Your task to perform on an android device: allow cookies in the chrome app Image 0: 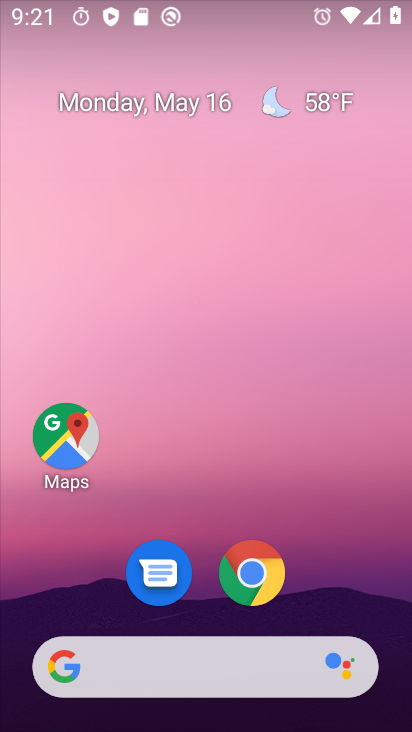
Step 0: drag from (200, 342) to (133, 62)
Your task to perform on an android device: allow cookies in the chrome app Image 1: 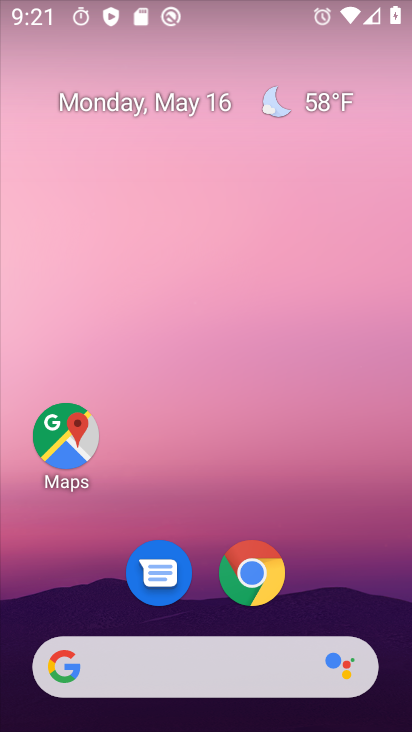
Step 1: drag from (207, 647) to (145, 67)
Your task to perform on an android device: allow cookies in the chrome app Image 2: 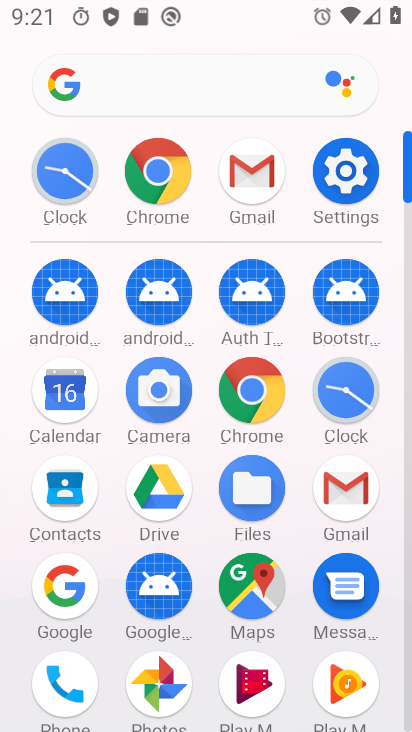
Step 2: click (159, 172)
Your task to perform on an android device: allow cookies in the chrome app Image 3: 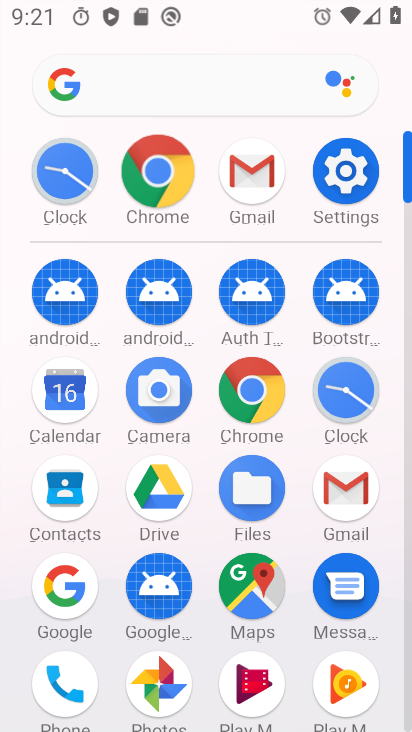
Step 3: click (159, 172)
Your task to perform on an android device: allow cookies in the chrome app Image 4: 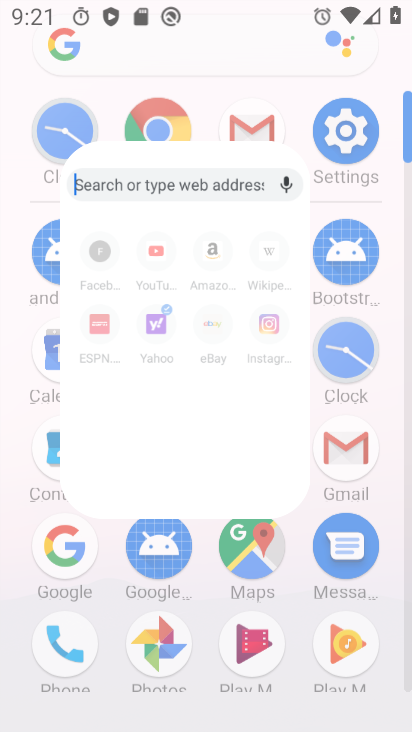
Step 4: click (159, 172)
Your task to perform on an android device: allow cookies in the chrome app Image 5: 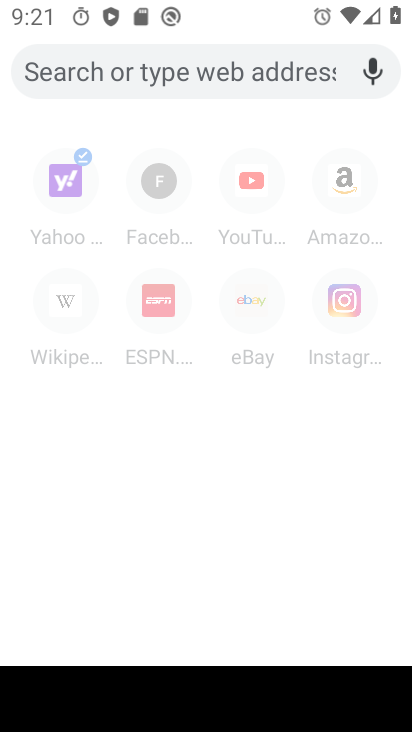
Step 5: press back button
Your task to perform on an android device: allow cookies in the chrome app Image 6: 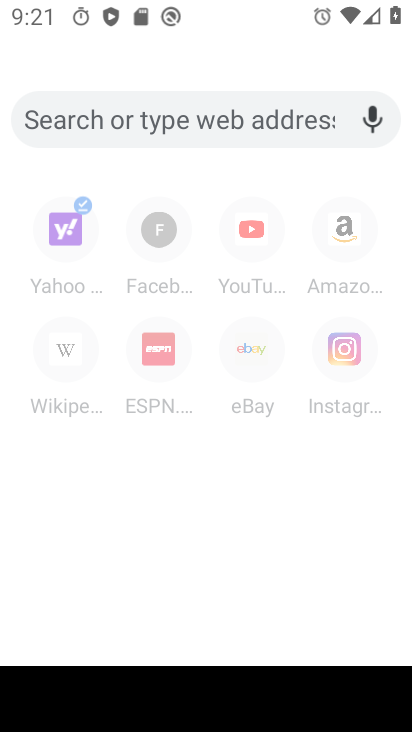
Step 6: press back button
Your task to perform on an android device: allow cookies in the chrome app Image 7: 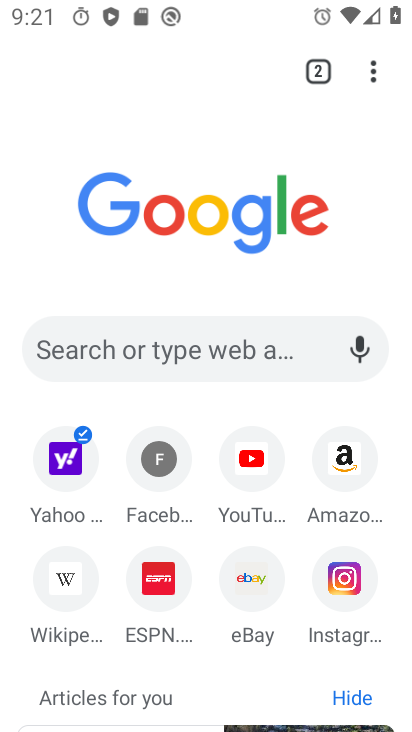
Step 7: press back button
Your task to perform on an android device: allow cookies in the chrome app Image 8: 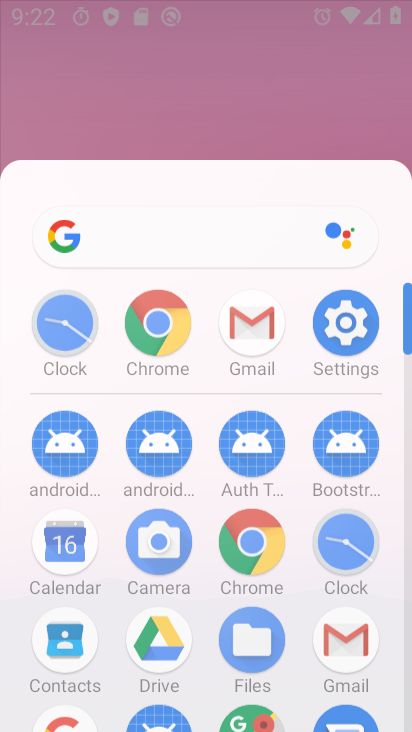
Step 8: press back button
Your task to perform on an android device: allow cookies in the chrome app Image 9: 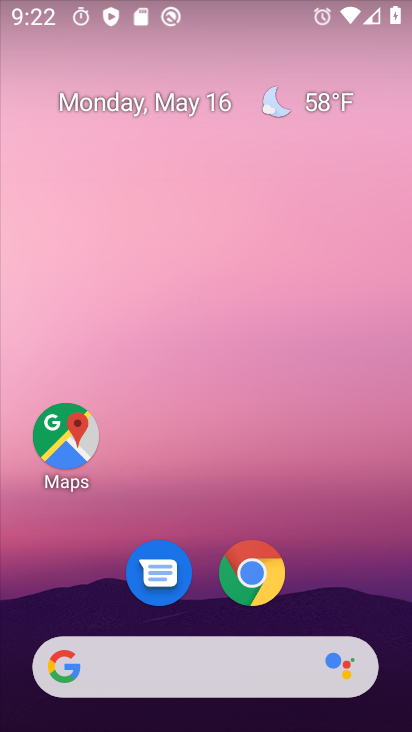
Step 9: click (374, 75)
Your task to perform on an android device: allow cookies in the chrome app Image 10: 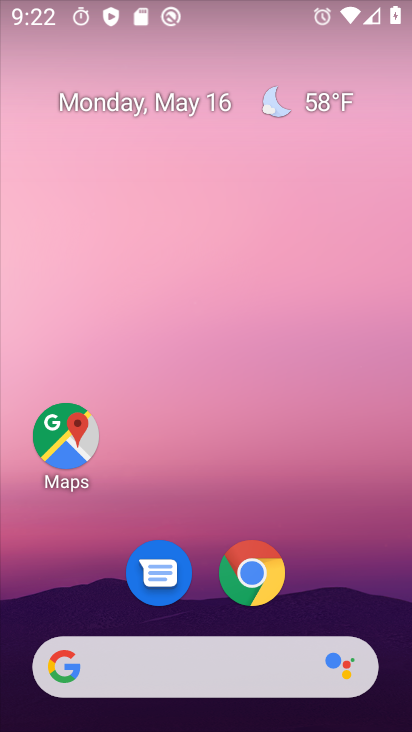
Step 10: drag from (287, 655) to (411, 216)
Your task to perform on an android device: allow cookies in the chrome app Image 11: 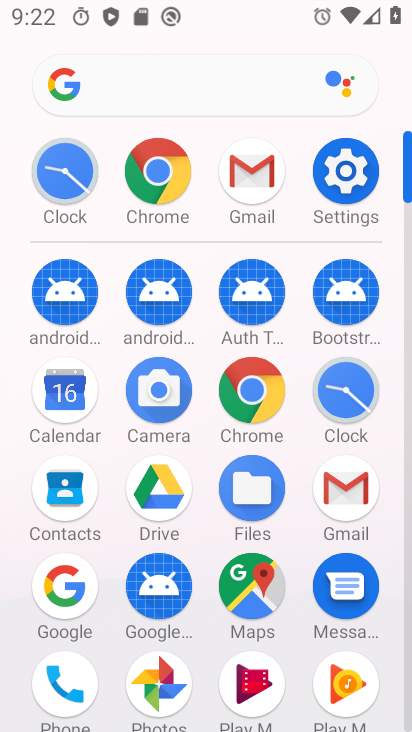
Step 11: click (254, 394)
Your task to perform on an android device: allow cookies in the chrome app Image 12: 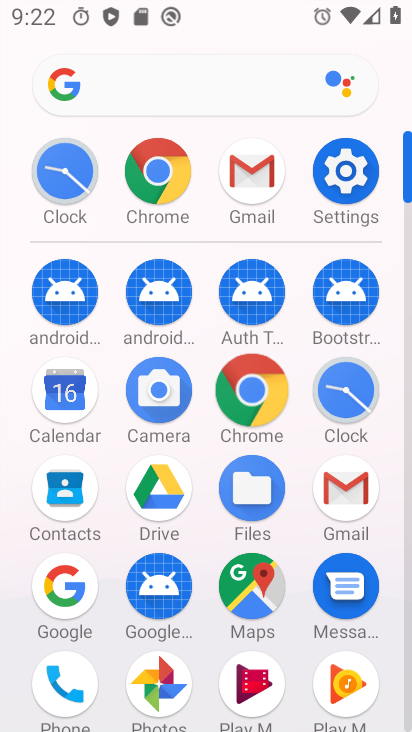
Step 12: click (254, 394)
Your task to perform on an android device: allow cookies in the chrome app Image 13: 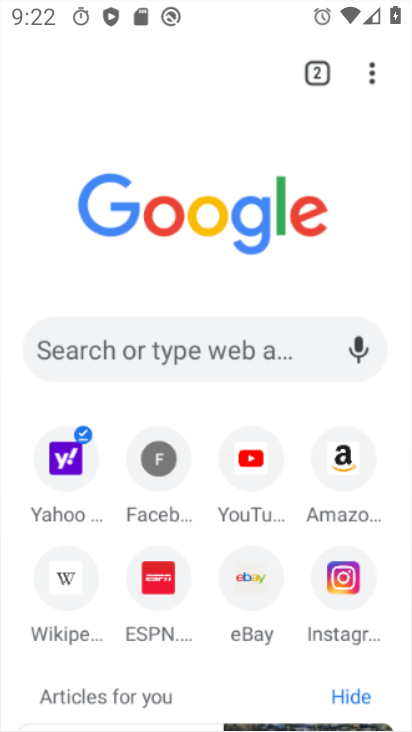
Step 13: click (254, 393)
Your task to perform on an android device: allow cookies in the chrome app Image 14: 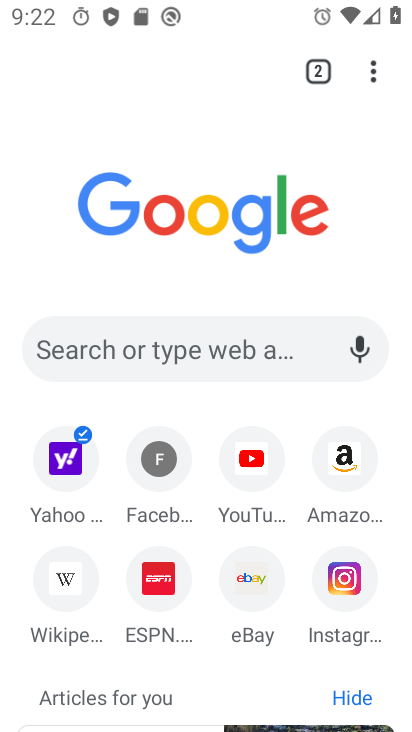
Step 14: drag from (374, 69) to (113, 611)
Your task to perform on an android device: allow cookies in the chrome app Image 15: 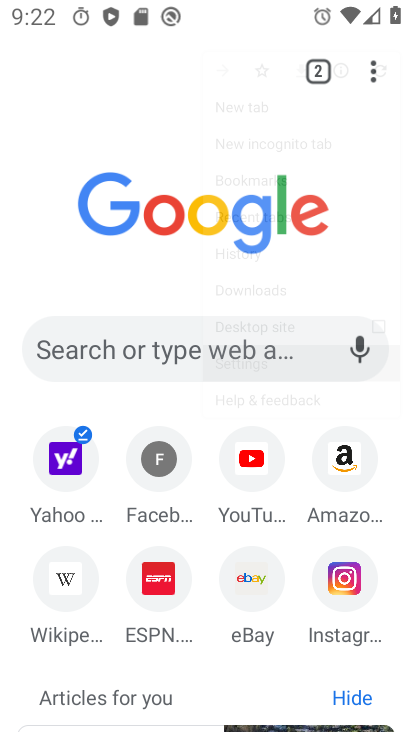
Step 15: click (116, 607)
Your task to perform on an android device: allow cookies in the chrome app Image 16: 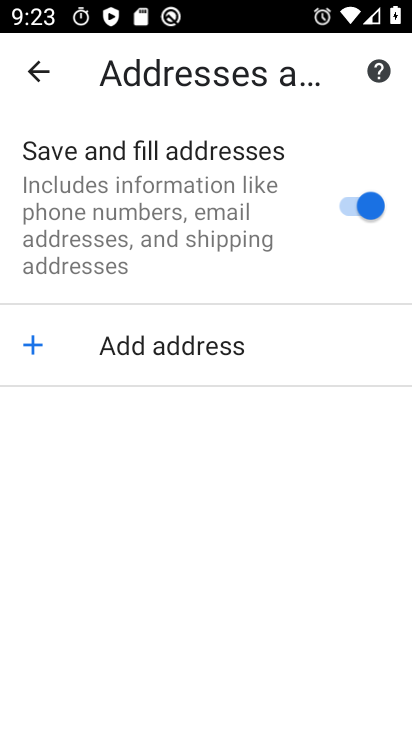
Step 16: click (38, 66)
Your task to perform on an android device: allow cookies in the chrome app Image 17: 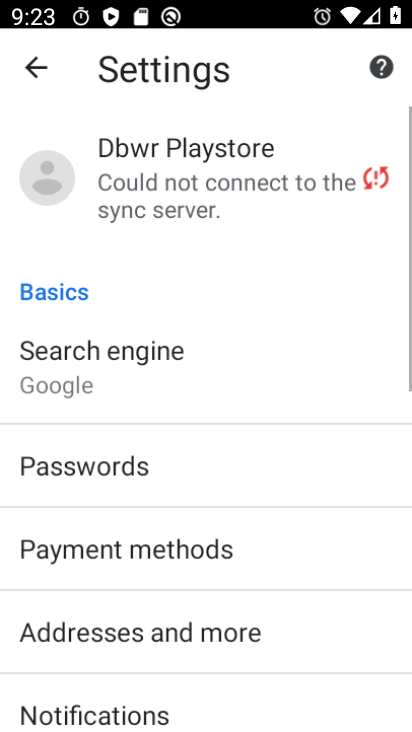
Step 17: click (34, 74)
Your task to perform on an android device: allow cookies in the chrome app Image 18: 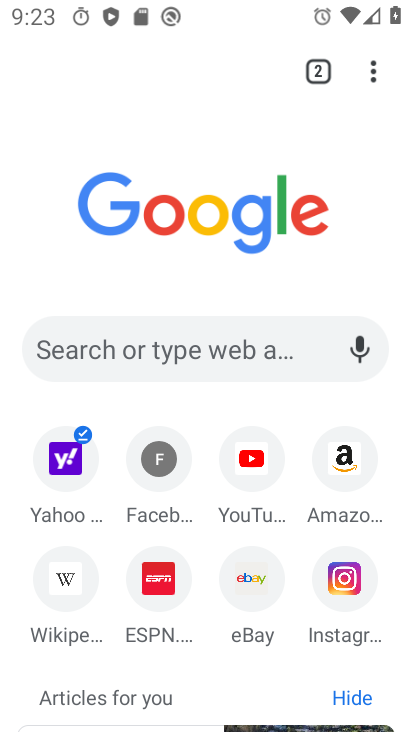
Step 18: click (375, 75)
Your task to perform on an android device: allow cookies in the chrome app Image 19: 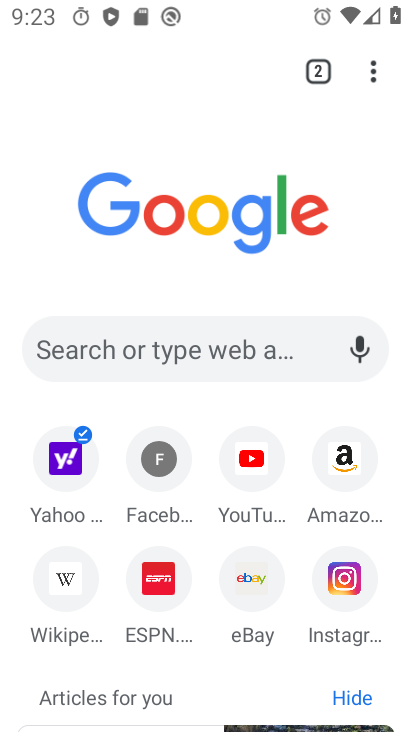
Step 19: click (372, 79)
Your task to perform on an android device: allow cookies in the chrome app Image 20: 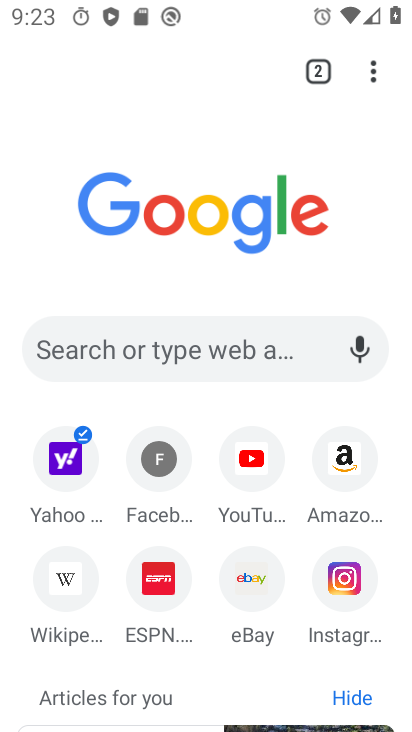
Step 20: drag from (361, 77) to (150, 607)
Your task to perform on an android device: allow cookies in the chrome app Image 21: 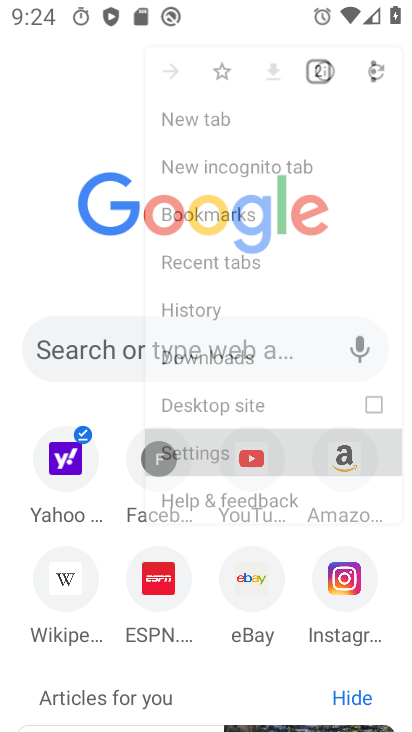
Step 21: click (157, 601)
Your task to perform on an android device: allow cookies in the chrome app Image 22: 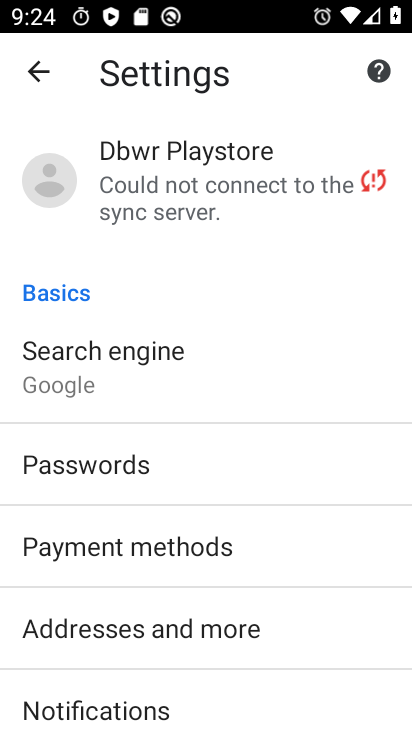
Step 22: drag from (263, 519) to (264, 37)
Your task to perform on an android device: allow cookies in the chrome app Image 23: 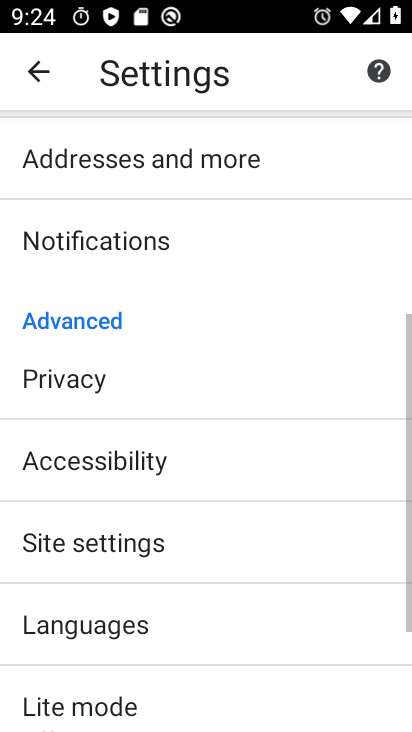
Step 23: drag from (262, 549) to (199, 43)
Your task to perform on an android device: allow cookies in the chrome app Image 24: 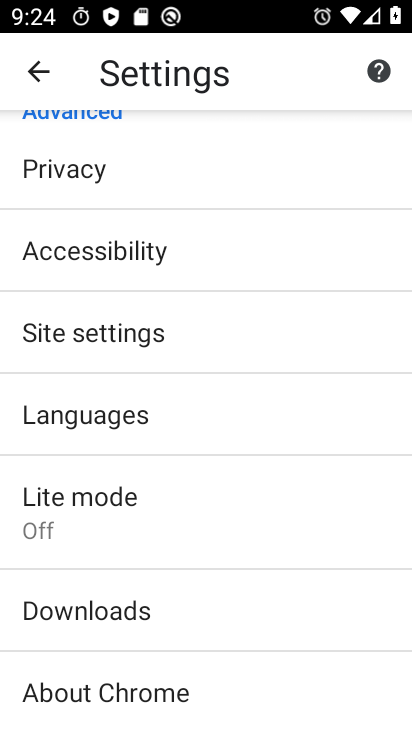
Step 24: drag from (136, 383) to (168, 578)
Your task to perform on an android device: allow cookies in the chrome app Image 25: 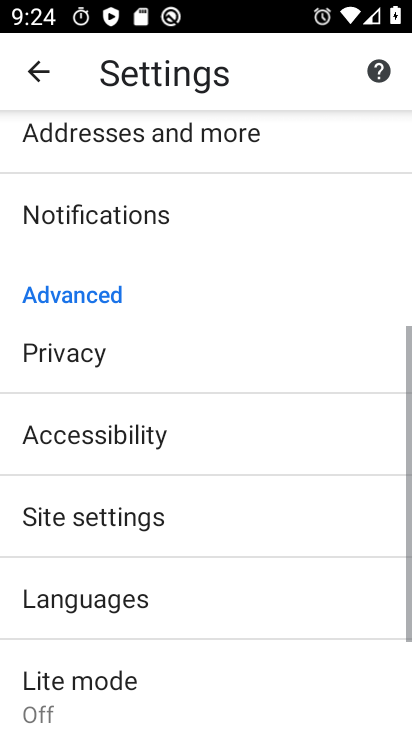
Step 25: drag from (165, 314) to (190, 563)
Your task to perform on an android device: allow cookies in the chrome app Image 26: 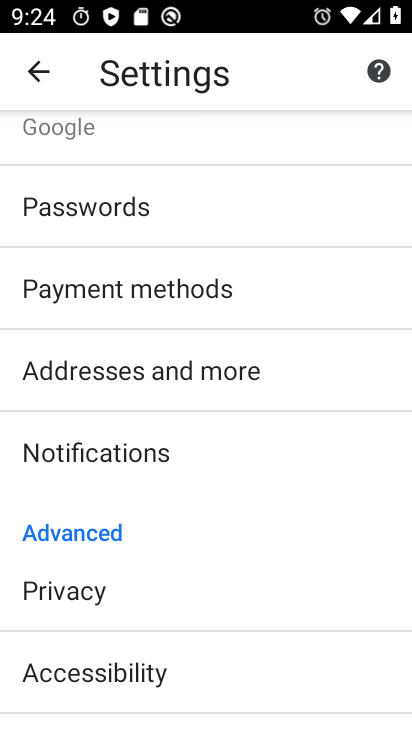
Step 26: drag from (130, 572) to (103, 108)
Your task to perform on an android device: allow cookies in the chrome app Image 27: 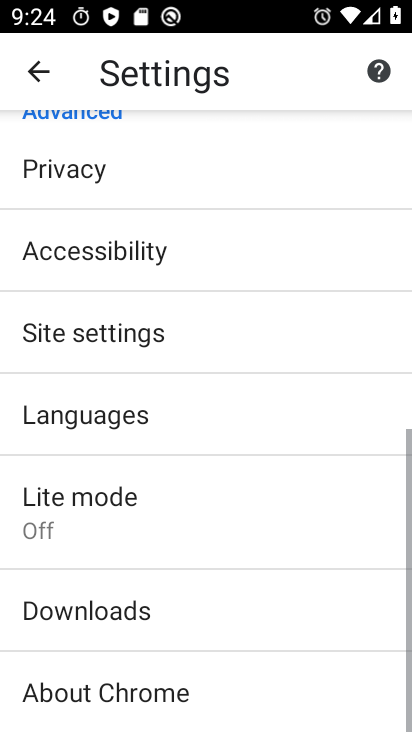
Step 27: drag from (144, 453) to (153, 94)
Your task to perform on an android device: allow cookies in the chrome app Image 28: 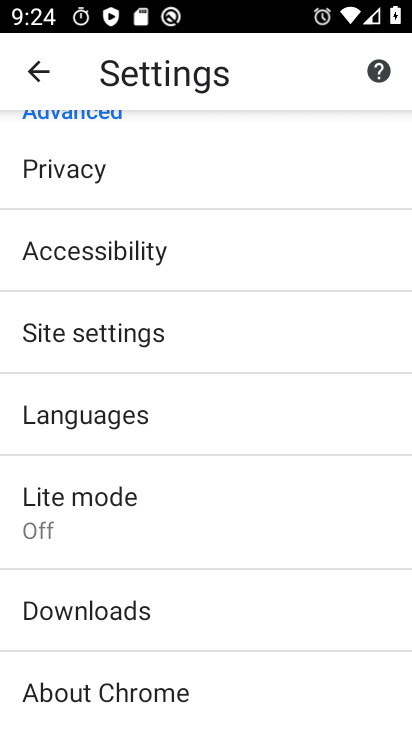
Step 28: click (83, 323)
Your task to perform on an android device: allow cookies in the chrome app Image 29: 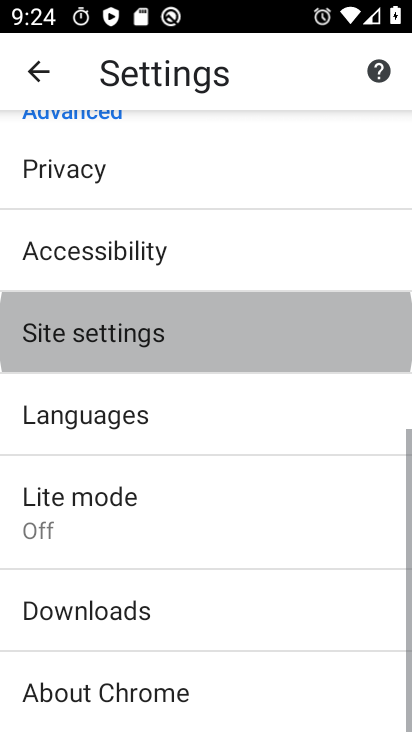
Step 29: click (83, 324)
Your task to perform on an android device: allow cookies in the chrome app Image 30: 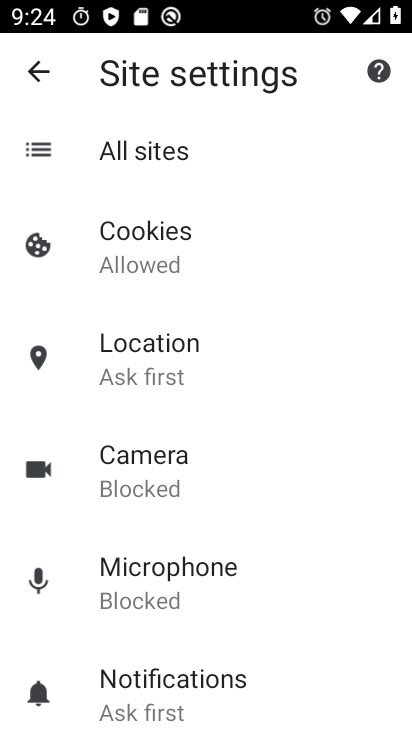
Step 30: click (145, 262)
Your task to perform on an android device: allow cookies in the chrome app Image 31: 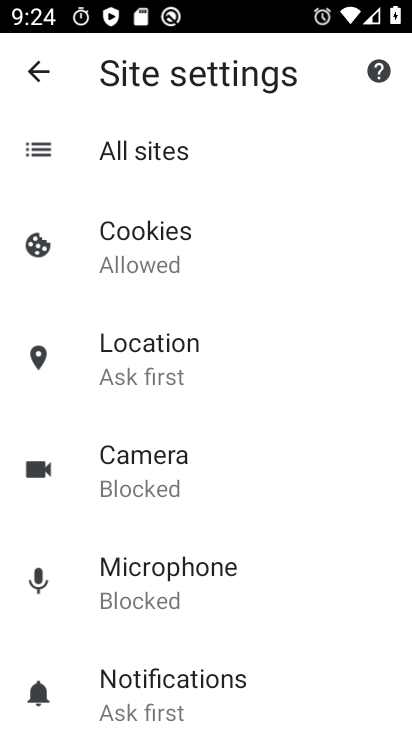
Step 31: click (145, 262)
Your task to perform on an android device: allow cookies in the chrome app Image 32: 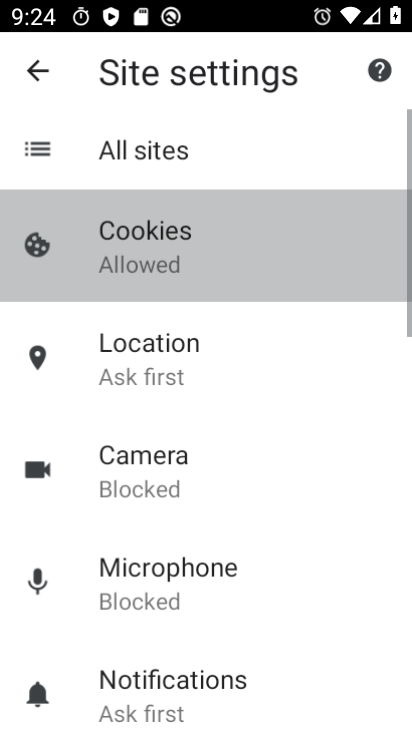
Step 32: click (145, 262)
Your task to perform on an android device: allow cookies in the chrome app Image 33: 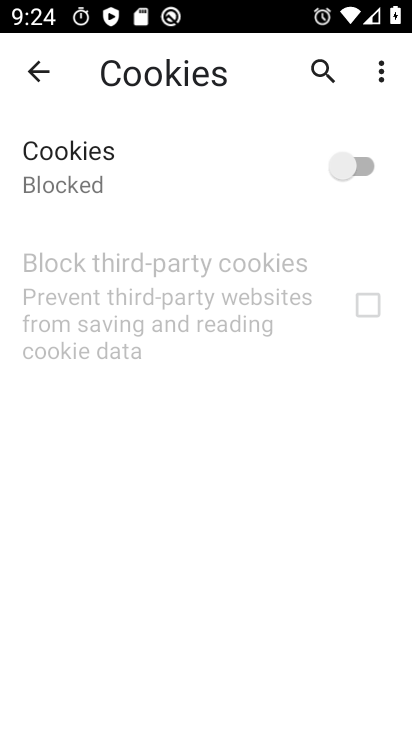
Step 33: click (348, 165)
Your task to perform on an android device: allow cookies in the chrome app Image 34: 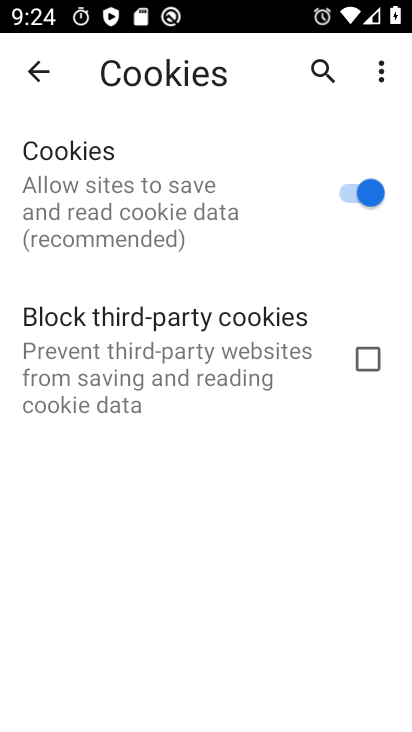
Step 34: task complete